Your task to perform on an android device: check data usage Image 0: 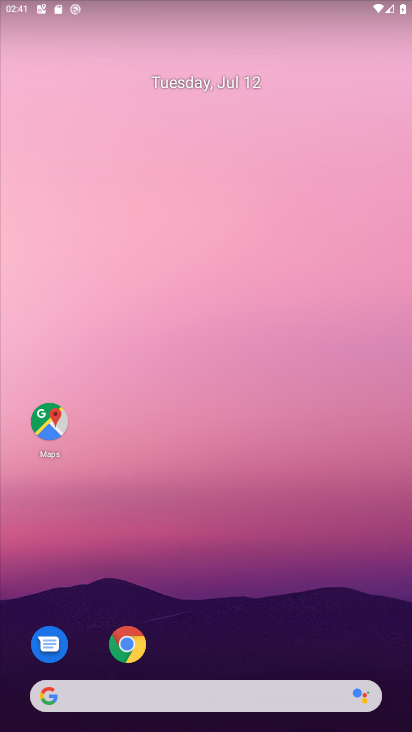
Step 0: drag from (204, 681) to (184, 152)
Your task to perform on an android device: check data usage Image 1: 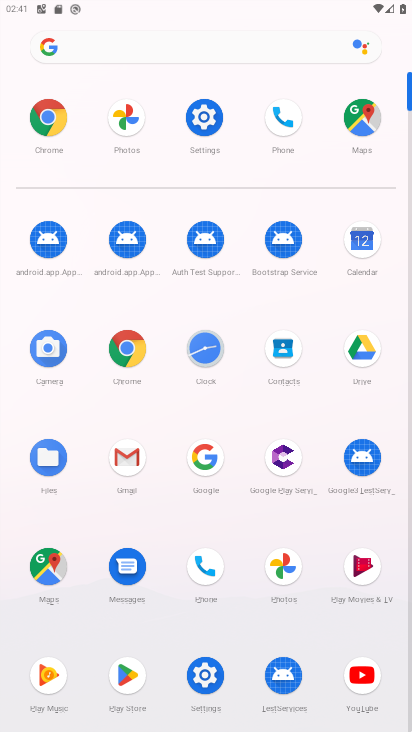
Step 1: click (199, 121)
Your task to perform on an android device: check data usage Image 2: 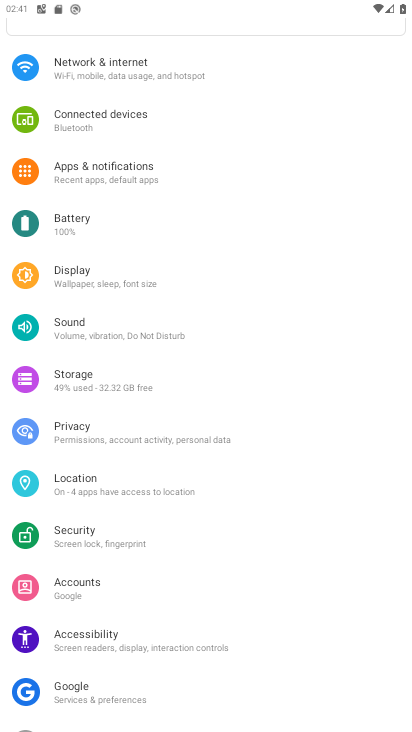
Step 2: click (113, 79)
Your task to perform on an android device: check data usage Image 3: 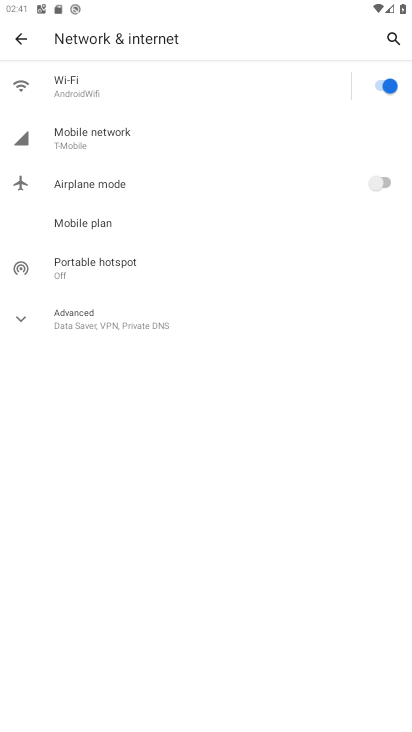
Step 3: click (113, 123)
Your task to perform on an android device: check data usage Image 4: 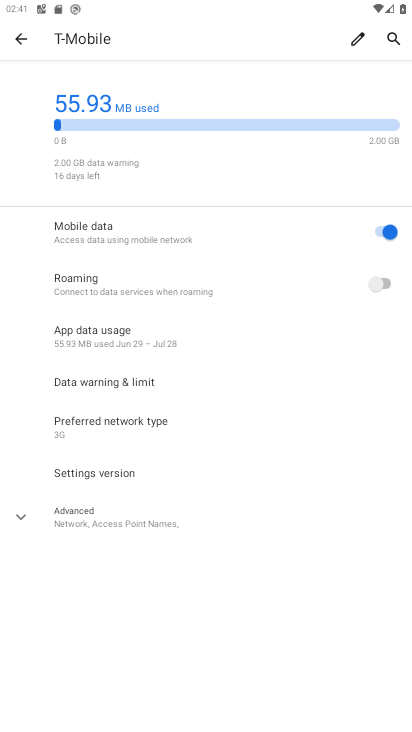
Step 4: task complete